Your task to perform on an android device: turn off translation in the chrome app Image 0: 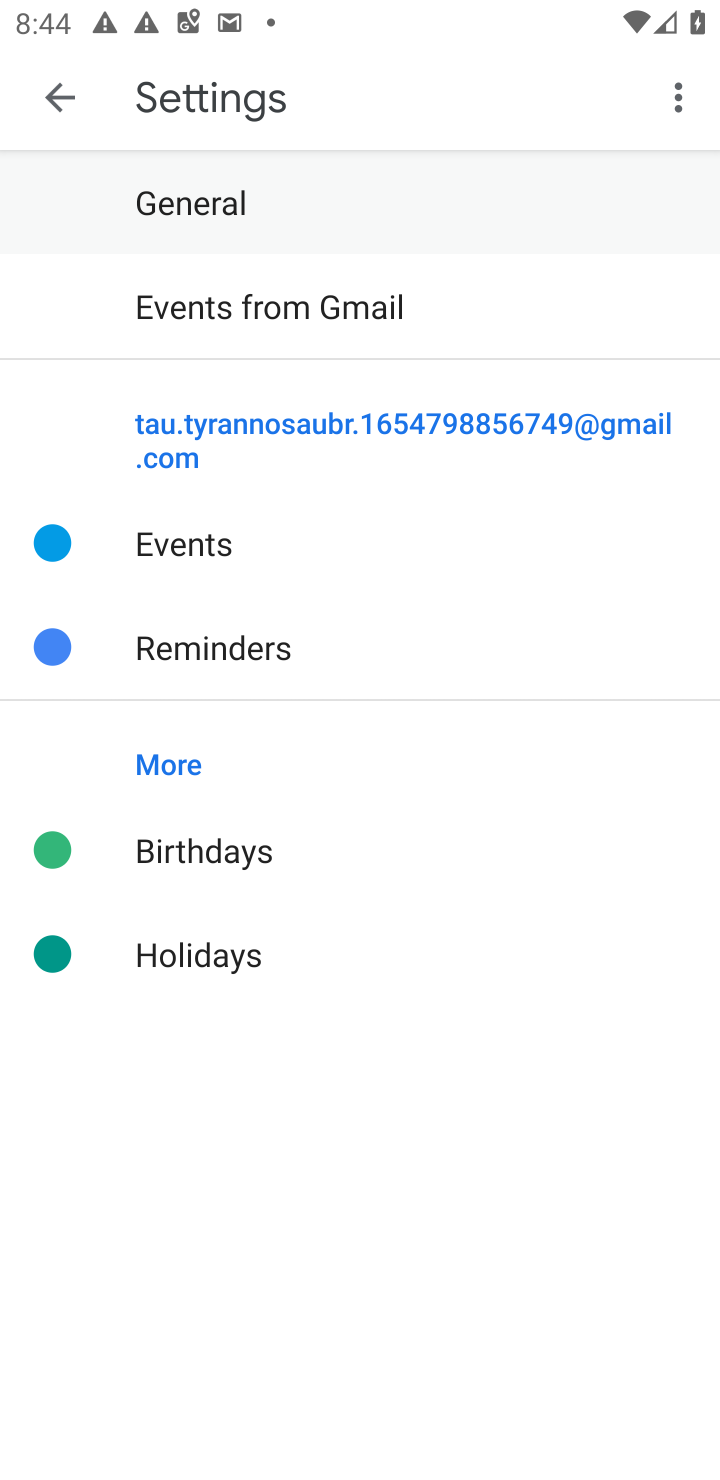
Step 0: press home button
Your task to perform on an android device: turn off translation in the chrome app Image 1: 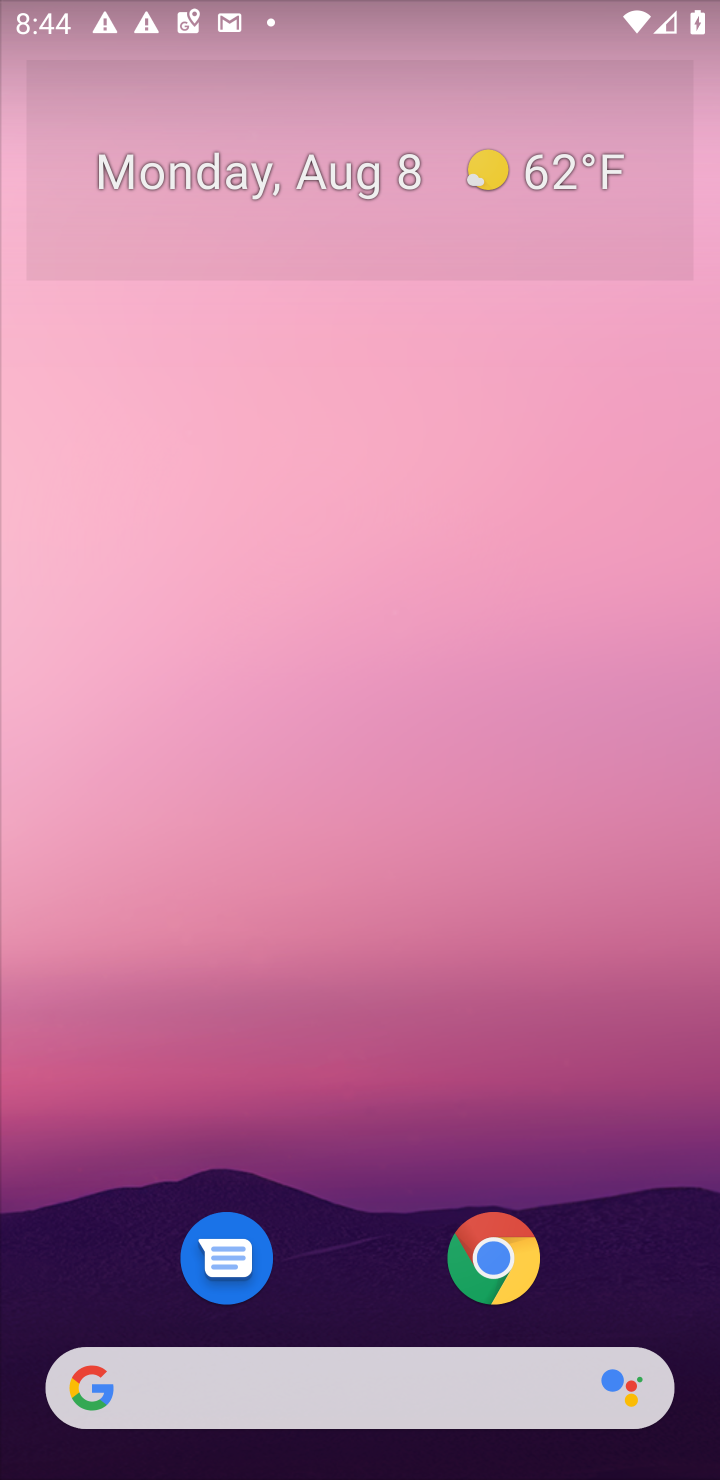
Step 1: click (505, 1256)
Your task to perform on an android device: turn off translation in the chrome app Image 2: 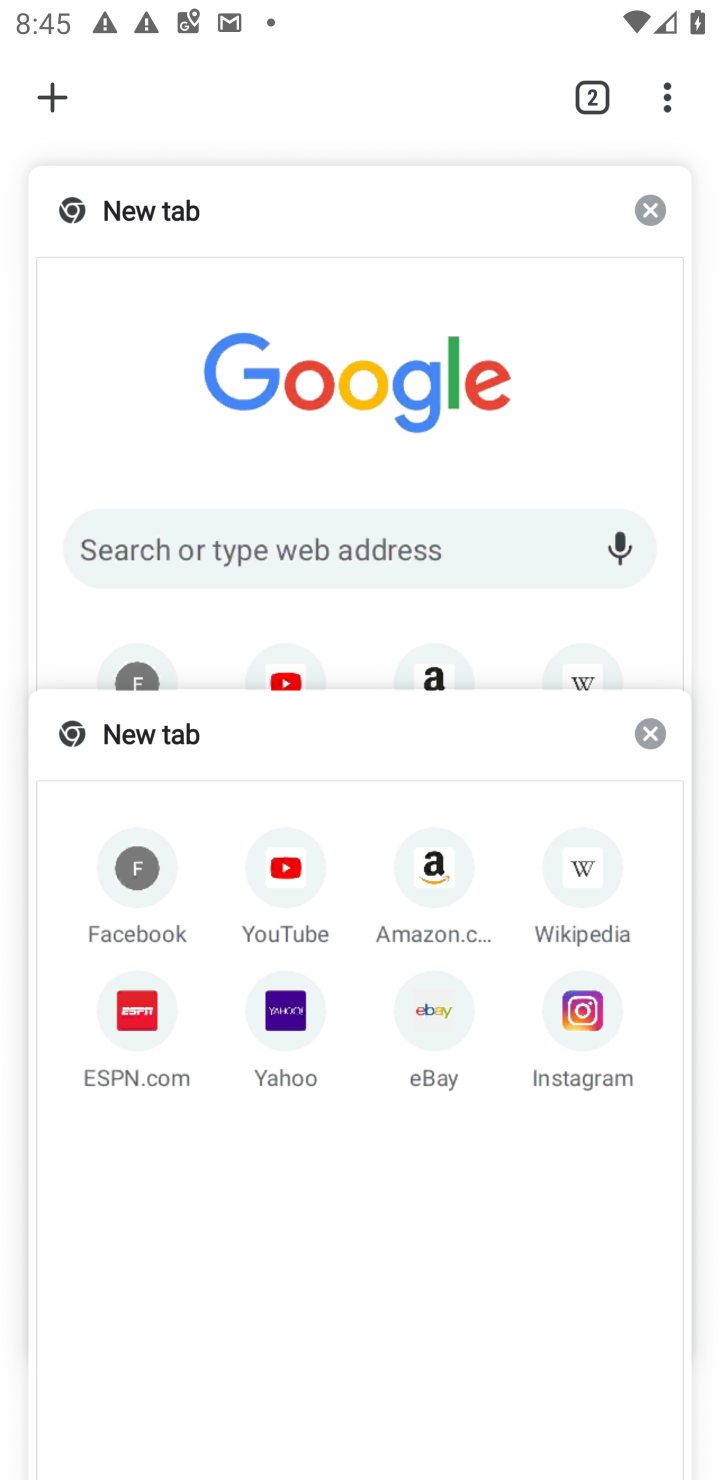
Step 2: click (646, 221)
Your task to perform on an android device: turn off translation in the chrome app Image 3: 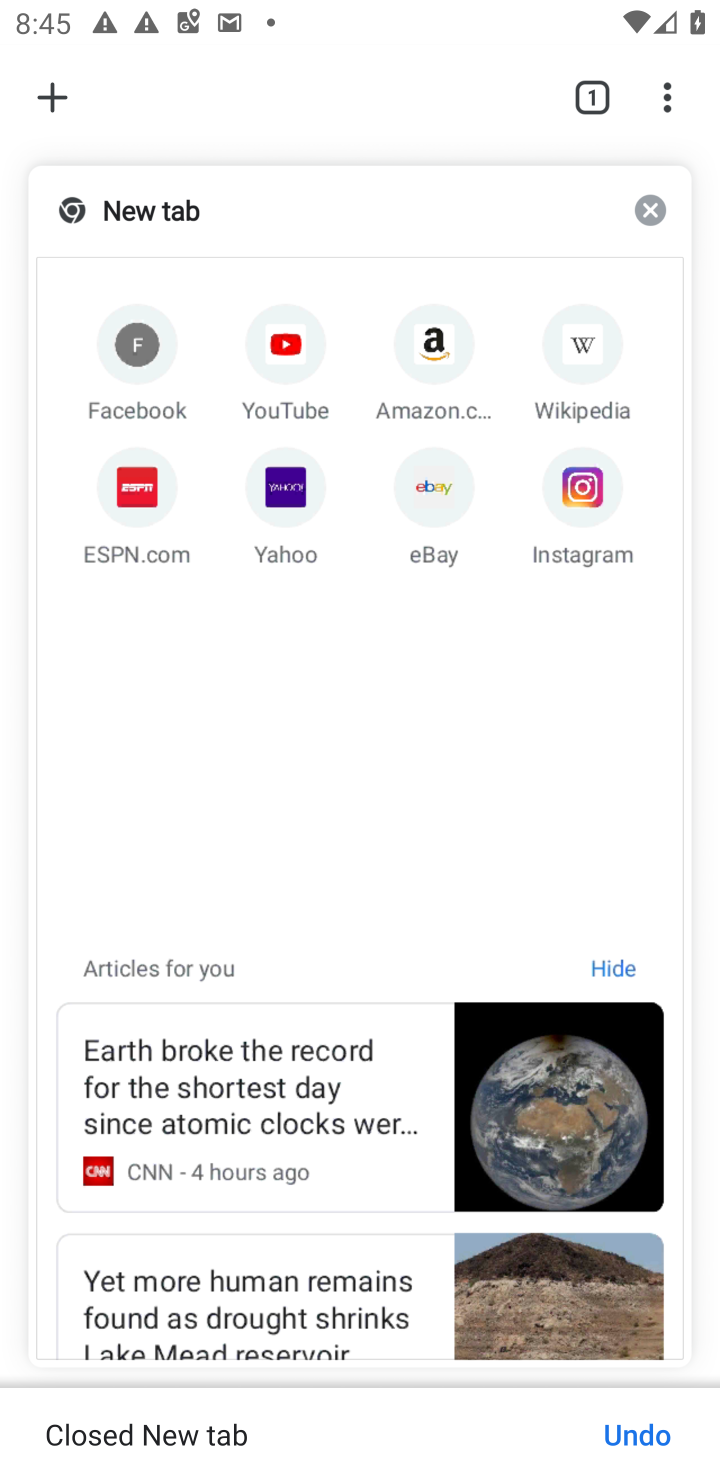
Step 3: click (646, 221)
Your task to perform on an android device: turn off translation in the chrome app Image 4: 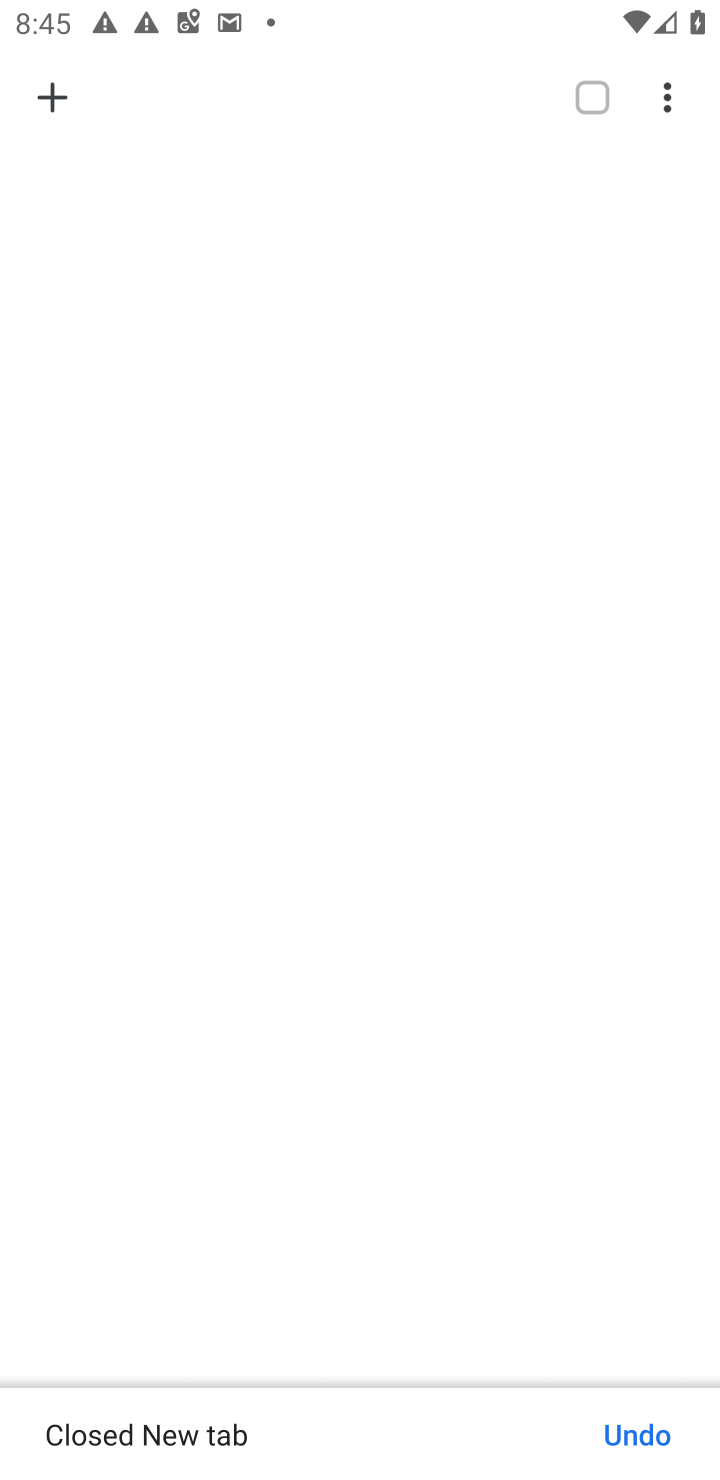
Step 4: click (665, 94)
Your task to perform on an android device: turn off translation in the chrome app Image 5: 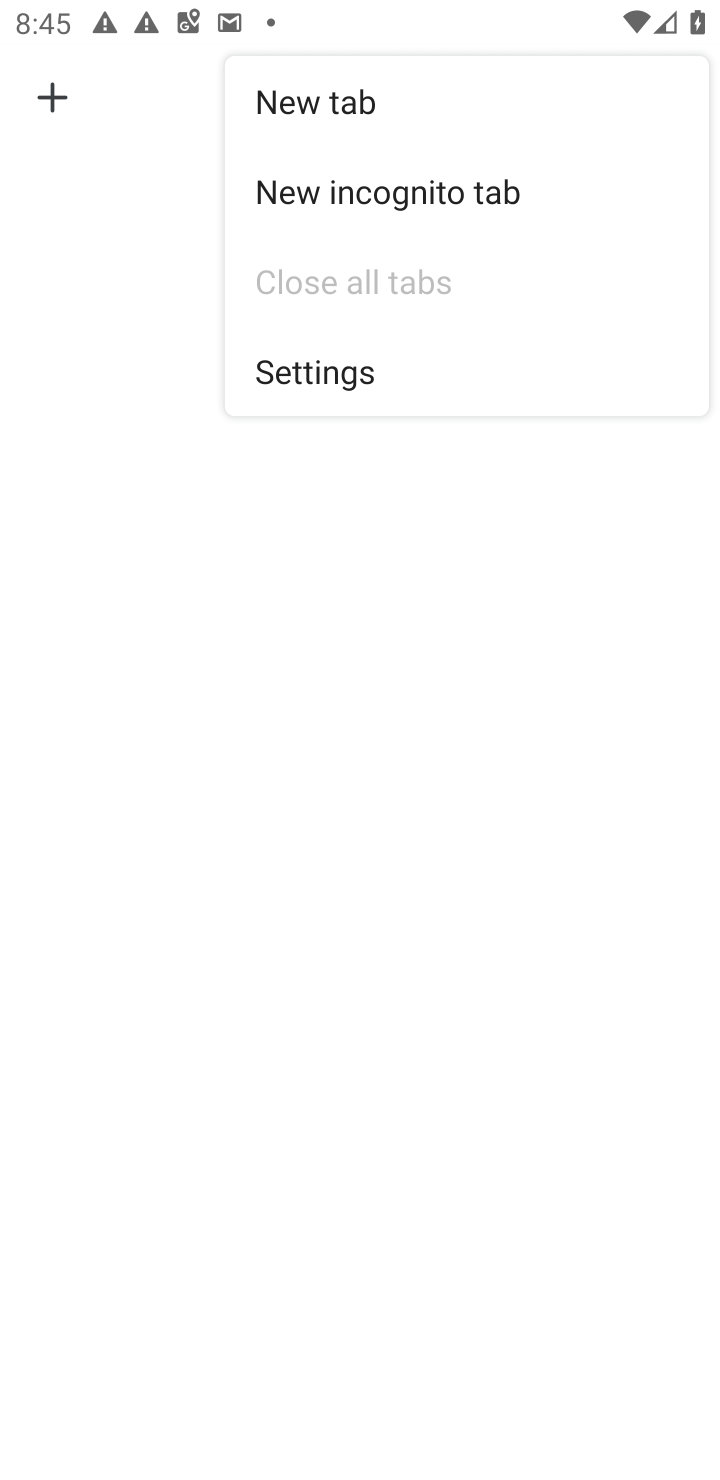
Step 5: click (387, 368)
Your task to perform on an android device: turn off translation in the chrome app Image 6: 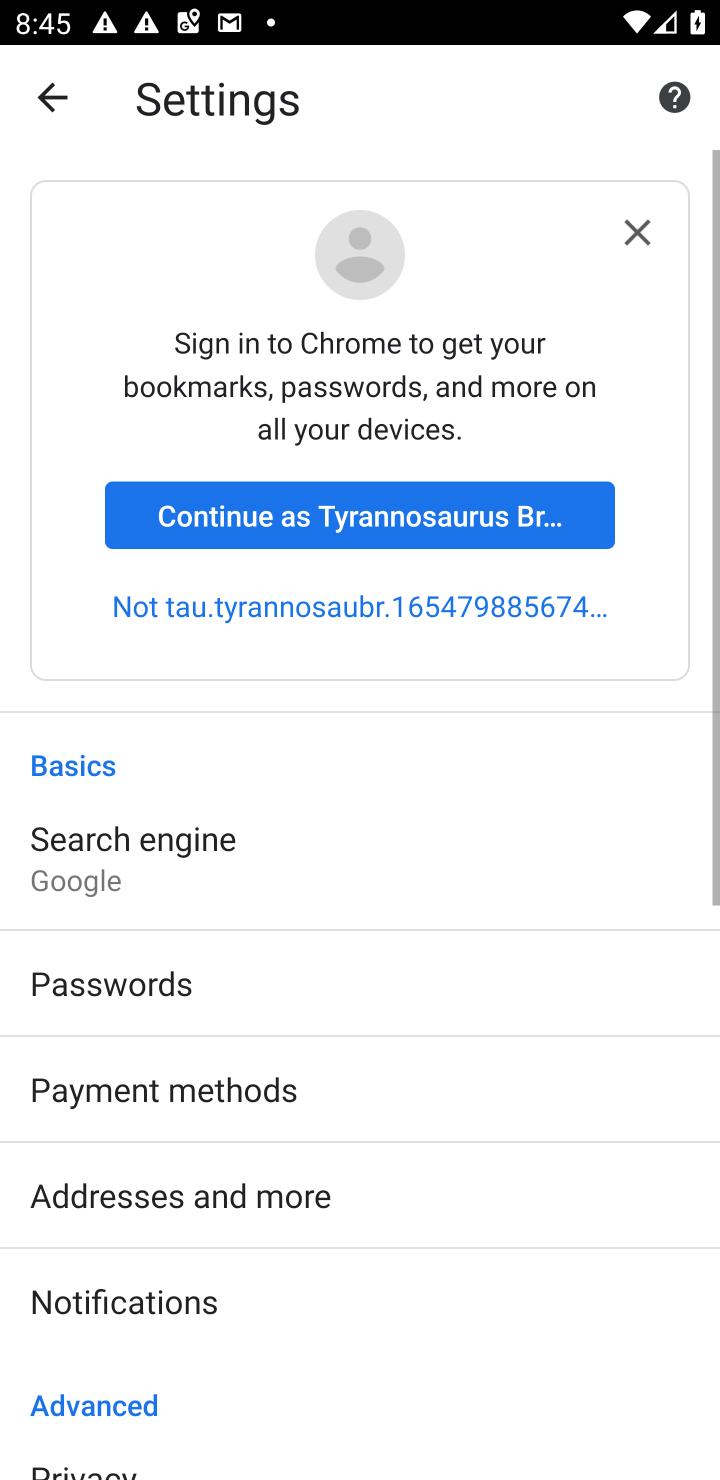
Step 6: task complete